Your task to perform on an android device: Go to settings Image 0: 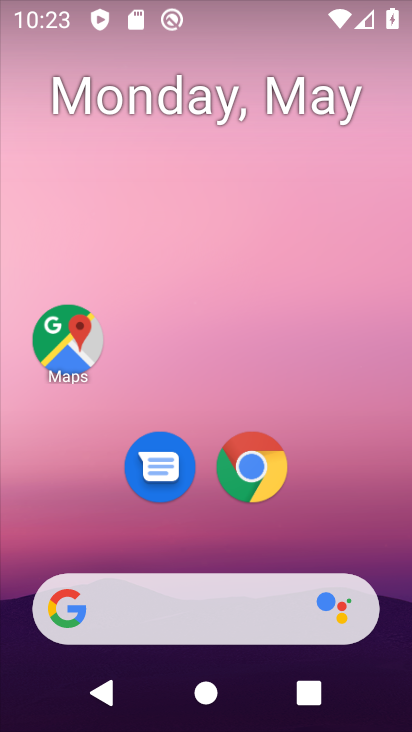
Step 0: drag from (191, 524) to (196, 11)
Your task to perform on an android device: Go to settings Image 1: 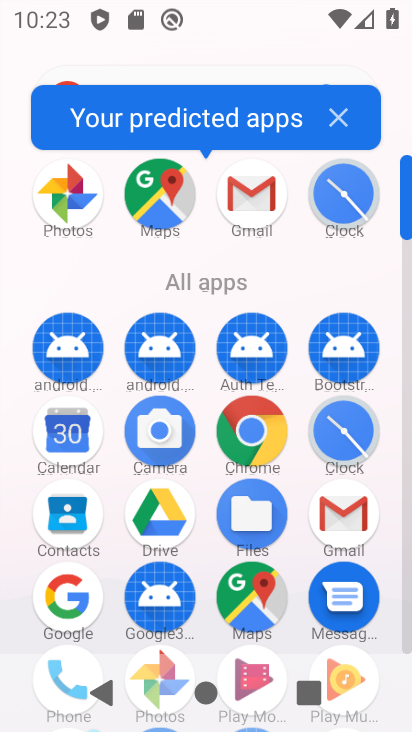
Step 1: drag from (206, 522) to (212, 230)
Your task to perform on an android device: Go to settings Image 2: 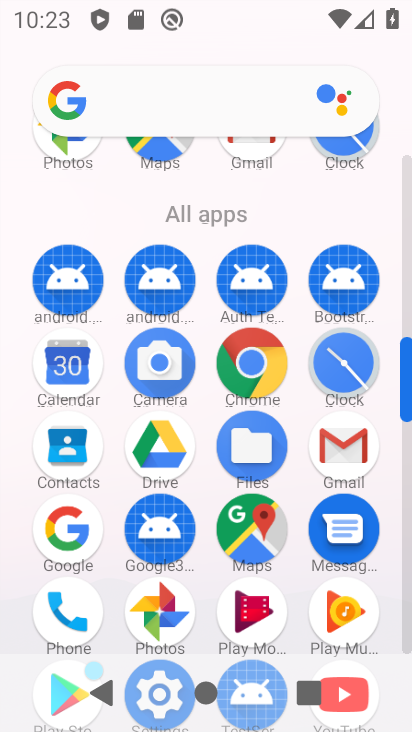
Step 2: drag from (203, 587) to (225, 263)
Your task to perform on an android device: Go to settings Image 3: 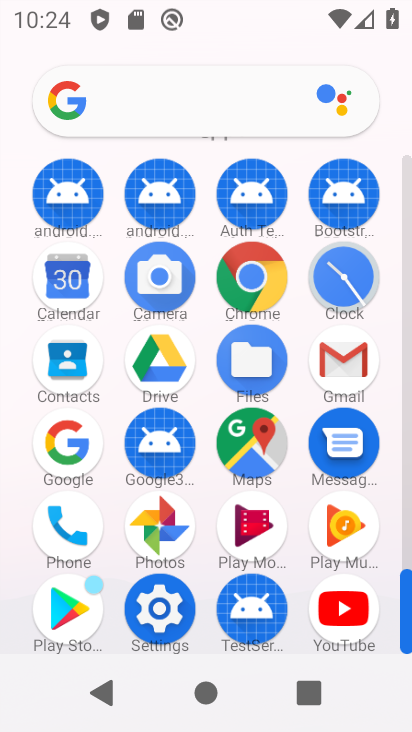
Step 3: click (167, 618)
Your task to perform on an android device: Go to settings Image 4: 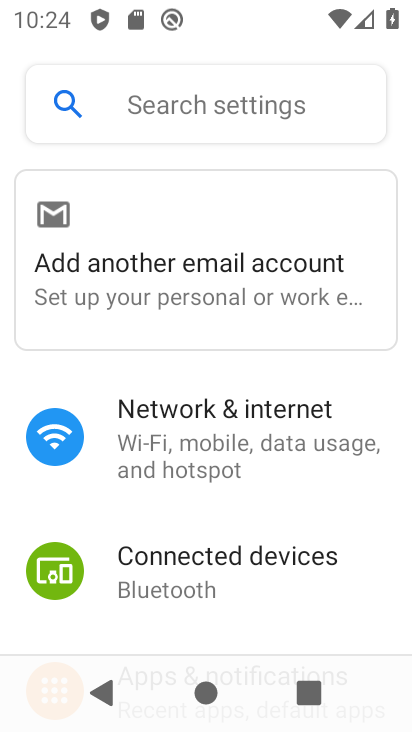
Step 4: task complete